Your task to perform on an android device: empty trash in the gmail app Image 0: 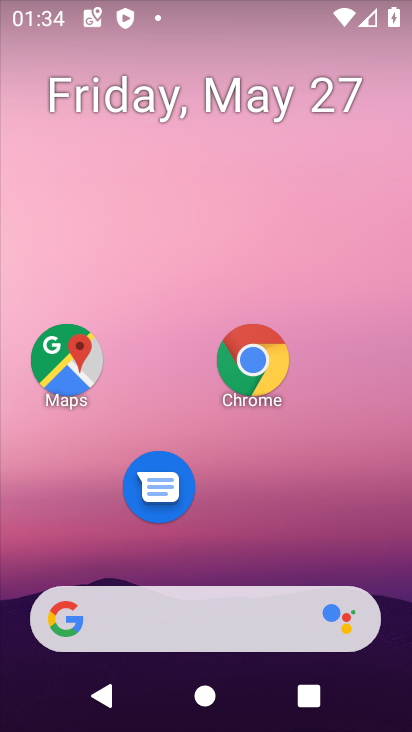
Step 0: drag from (238, 521) to (312, 56)
Your task to perform on an android device: empty trash in the gmail app Image 1: 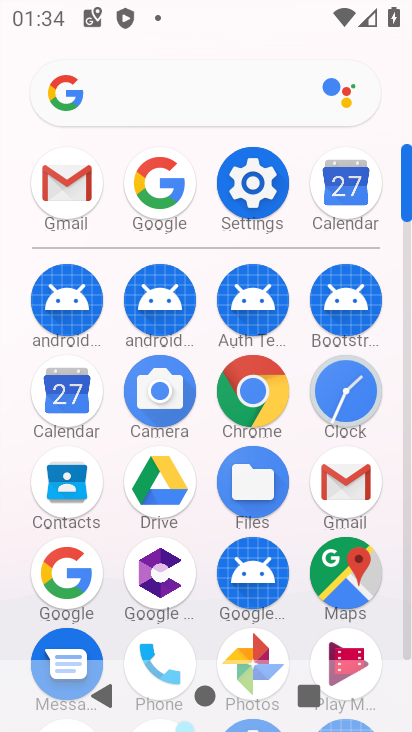
Step 1: click (63, 183)
Your task to perform on an android device: empty trash in the gmail app Image 2: 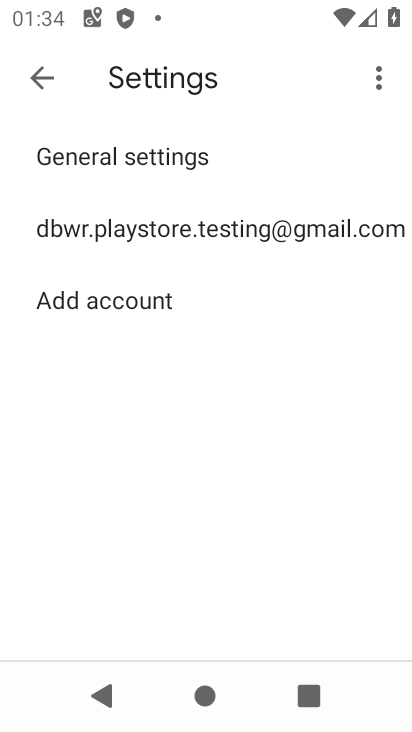
Step 2: press back button
Your task to perform on an android device: empty trash in the gmail app Image 3: 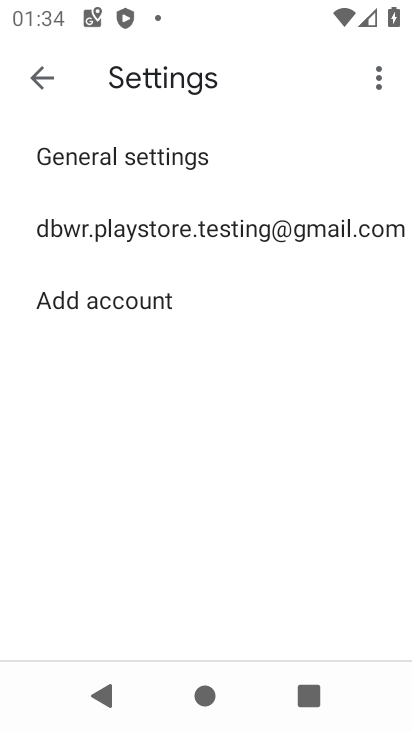
Step 3: press back button
Your task to perform on an android device: empty trash in the gmail app Image 4: 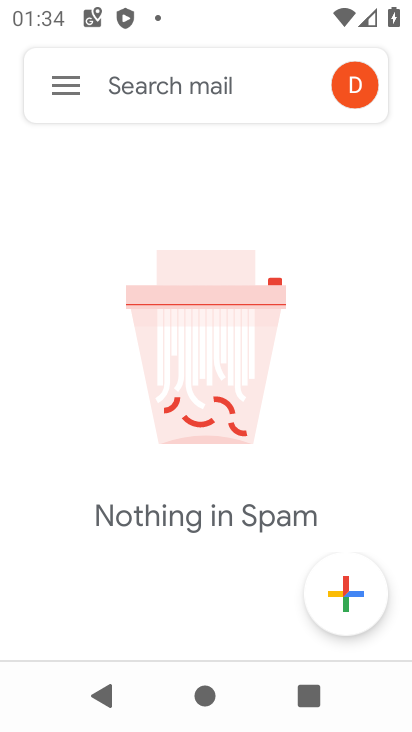
Step 4: click (55, 89)
Your task to perform on an android device: empty trash in the gmail app Image 5: 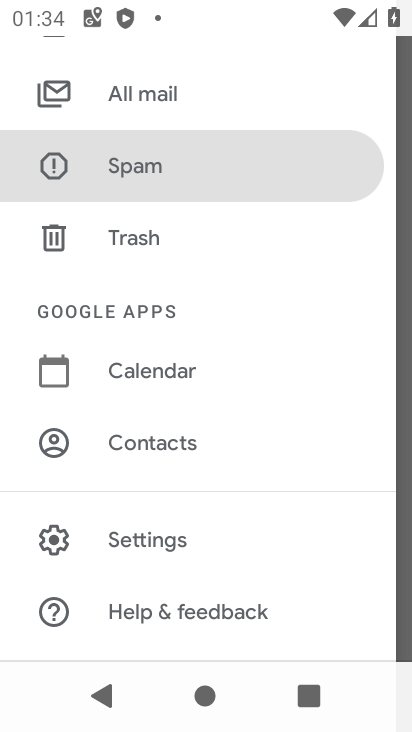
Step 5: click (171, 238)
Your task to perform on an android device: empty trash in the gmail app Image 6: 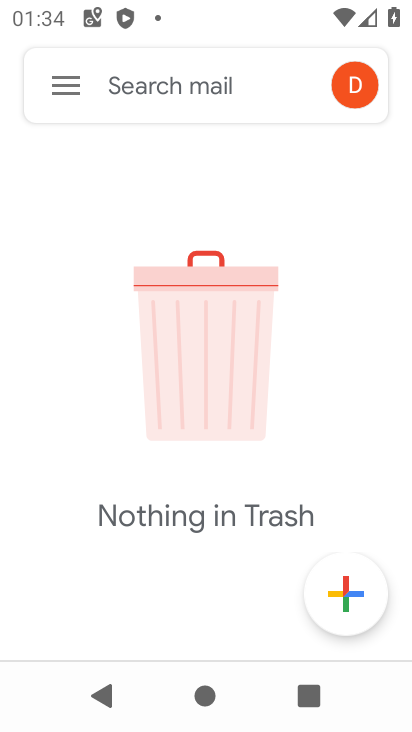
Step 6: task complete